Your task to perform on an android device: Open Amazon Image 0: 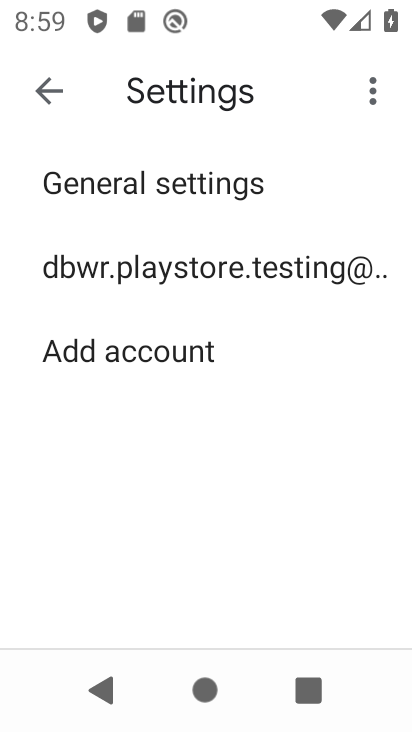
Step 0: press home button
Your task to perform on an android device: Open Amazon Image 1: 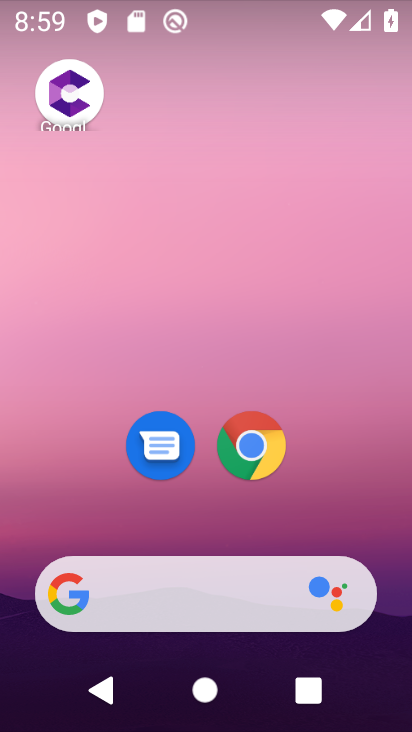
Step 1: click (265, 464)
Your task to perform on an android device: Open Amazon Image 2: 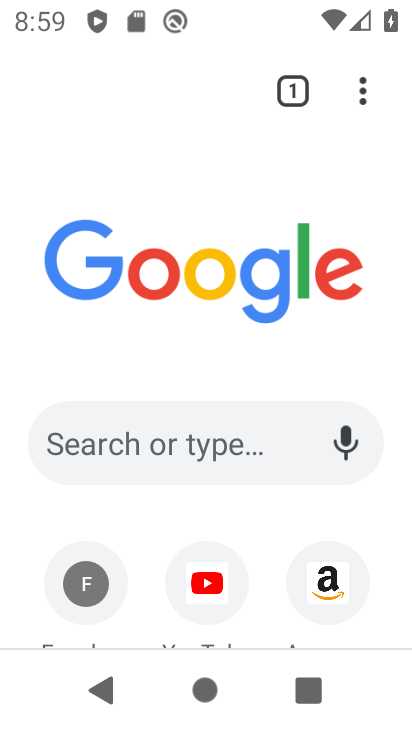
Step 2: click (323, 566)
Your task to perform on an android device: Open Amazon Image 3: 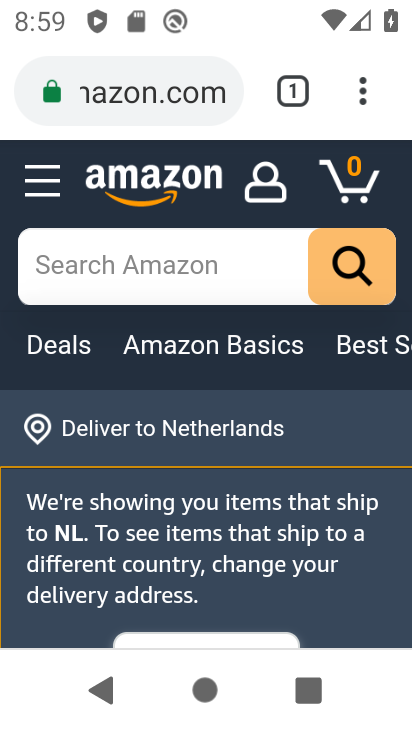
Step 3: task complete